Your task to perform on an android device: find snoozed emails in the gmail app Image 0: 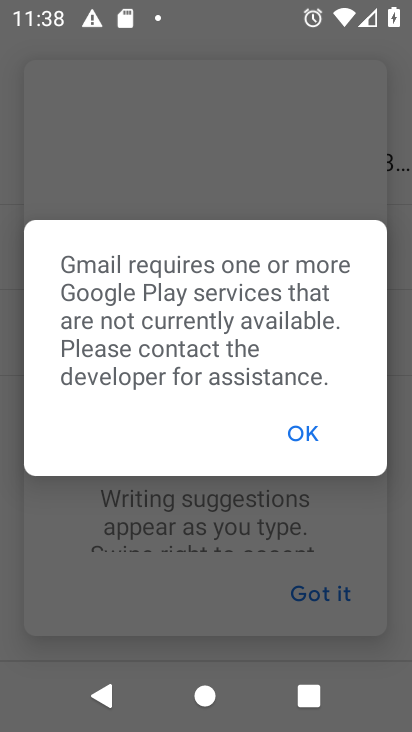
Step 0: press back button
Your task to perform on an android device: find snoozed emails in the gmail app Image 1: 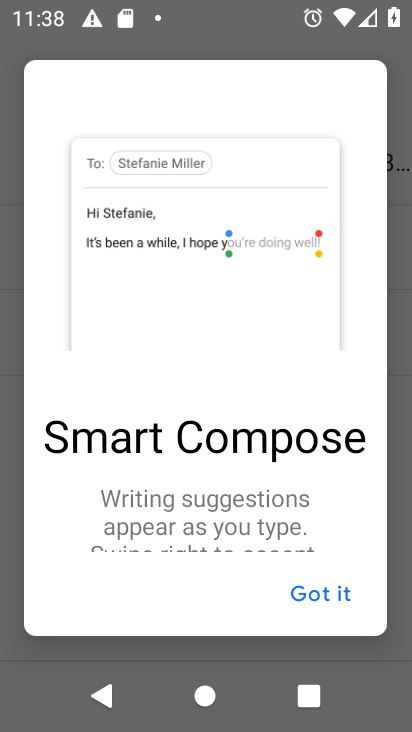
Step 1: press back button
Your task to perform on an android device: find snoozed emails in the gmail app Image 2: 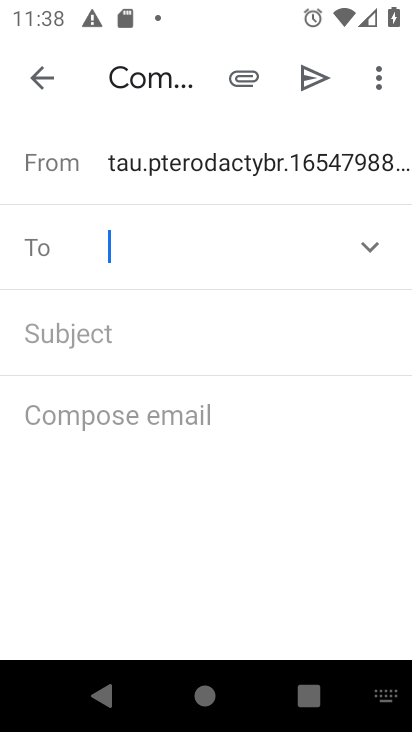
Step 2: press back button
Your task to perform on an android device: find snoozed emails in the gmail app Image 3: 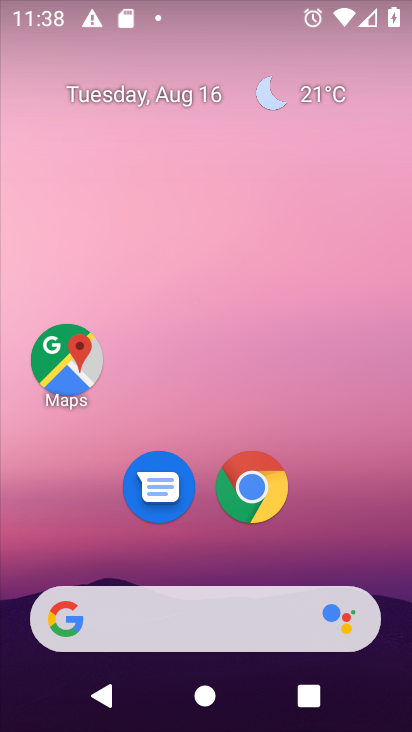
Step 3: drag from (199, 543) to (285, 30)
Your task to perform on an android device: find snoozed emails in the gmail app Image 4: 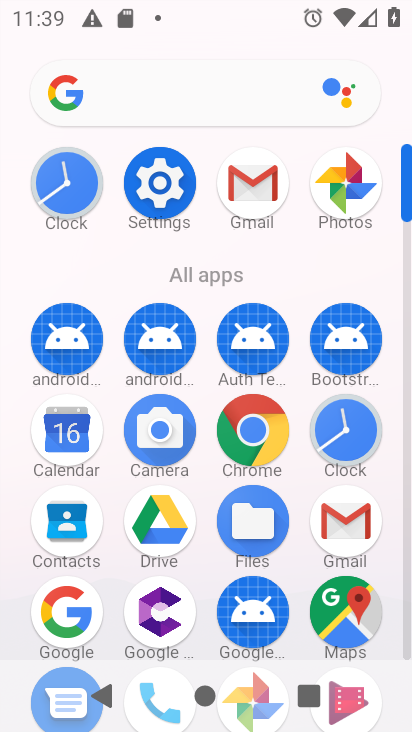
Step 4: click (258, 175)
Your task to perform on an android device: find snoozed emails in the gmail app Image 5: 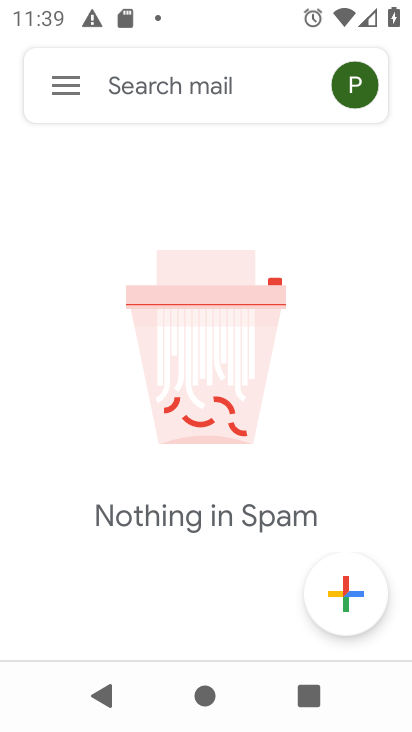
Step 5: click (66, 86)
Your task to perform on an android device: find snoozed emails in the gmail app Image 6: 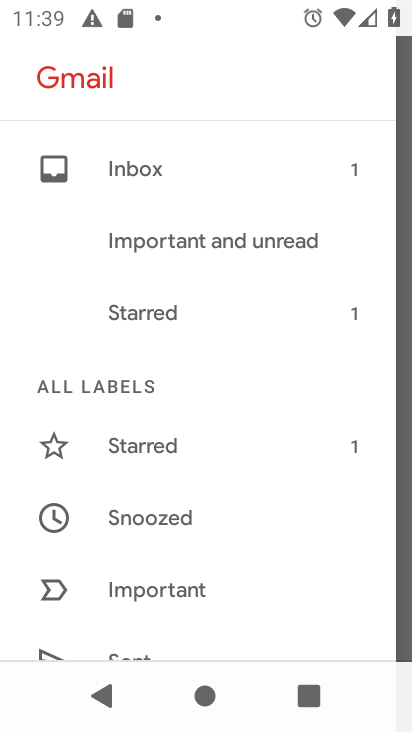
Step 6: click (170, 507)
Your task to perform on an android device: find snoozed emails in the gmail app Image 7: 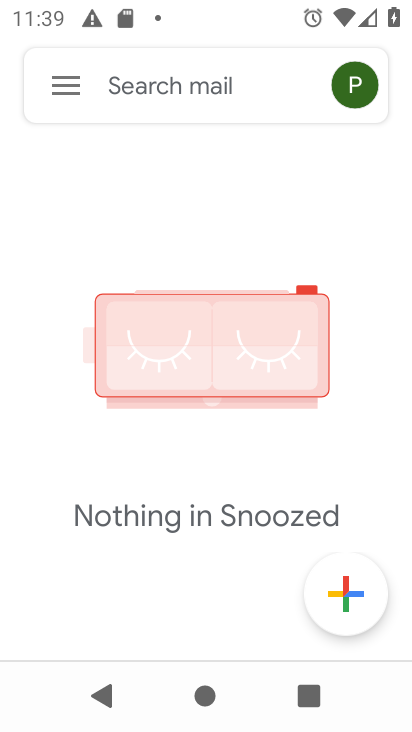
Step 7: task complete